Your task to perform on an android device: Do I have any events today? Image 0: 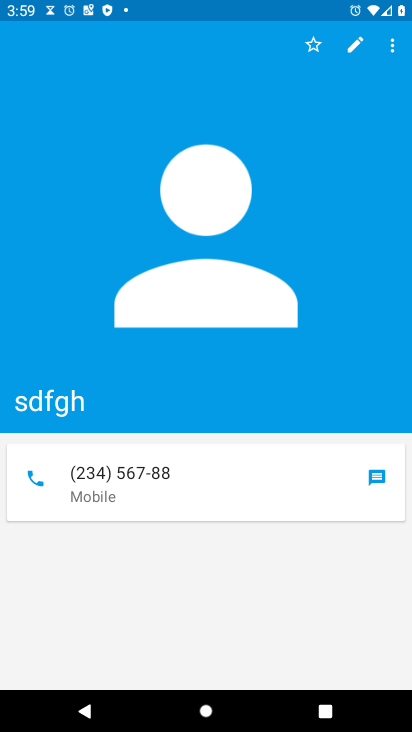
Step 0: press back button
Your task to perform on an android device: Do I have any events today? Image 1: 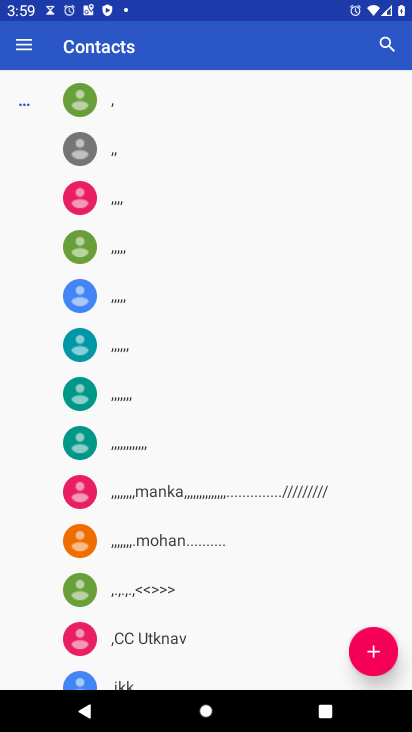
Step 1: press back button
Your task to perform on an android device: Do I have any events today? Image 2: 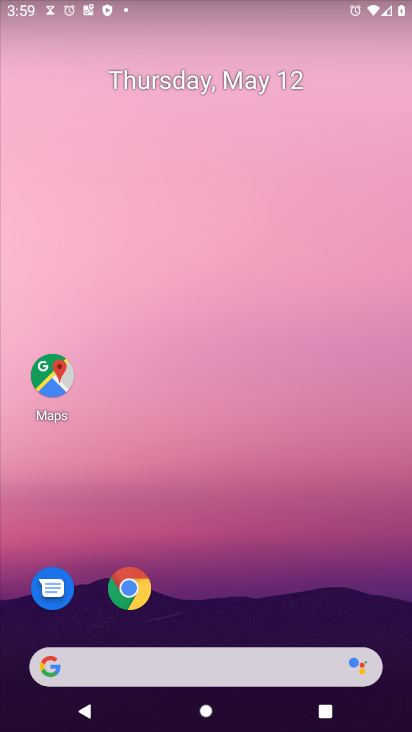
Step 2: drag from (279, 548) to (233, 15)
Your task to perform on an android device: Do I have any events today? Image 3: 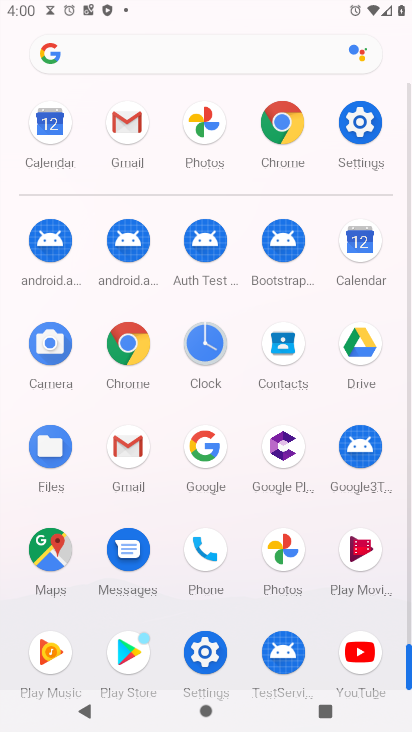
Step 3: click (359, 241)
Your task to perform on an android device: Do I have any events today? Image 4: 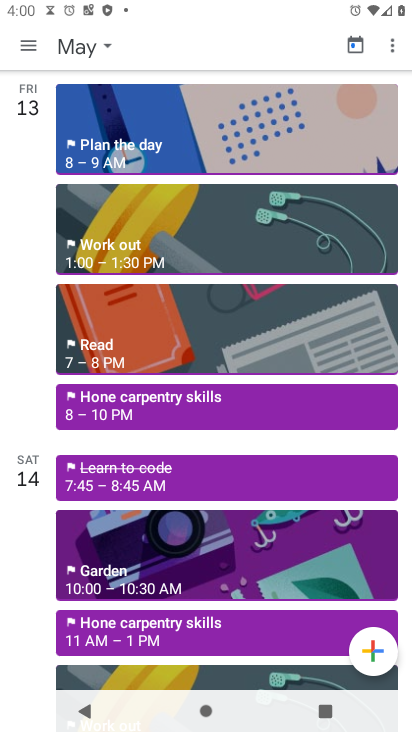
Step 4: drag from (133, 97) to (195, 574)
Your task to perform on an android device: Do I have any events today? Image 5: 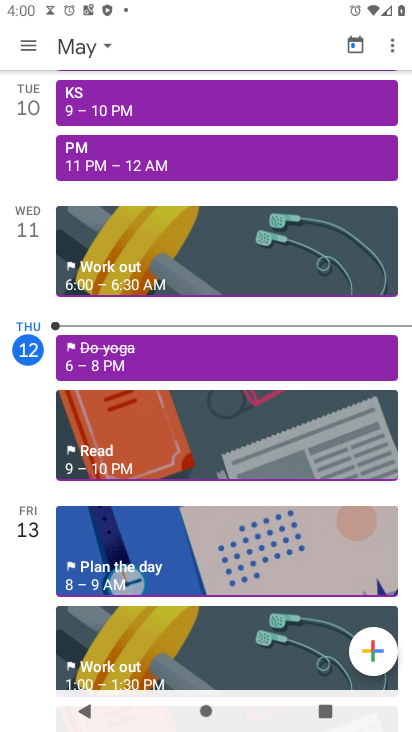
Step 5: click (29, 40)
Your task to perform on an android device: Do I have any events today? Image 6: 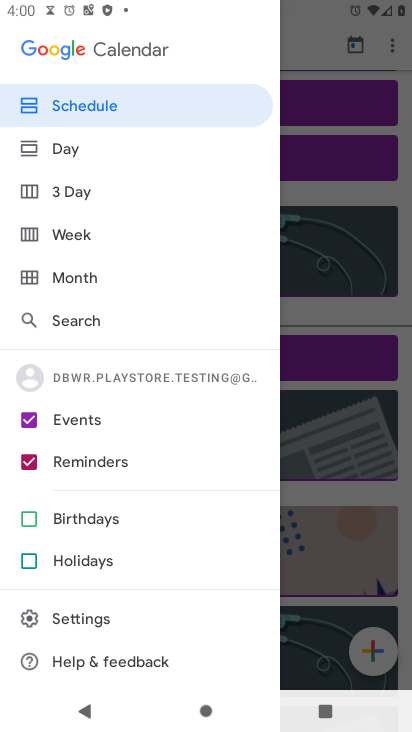
Step 6: click (87, 153)
Your task to perform on an android device: Do I have any events today? Image 7: 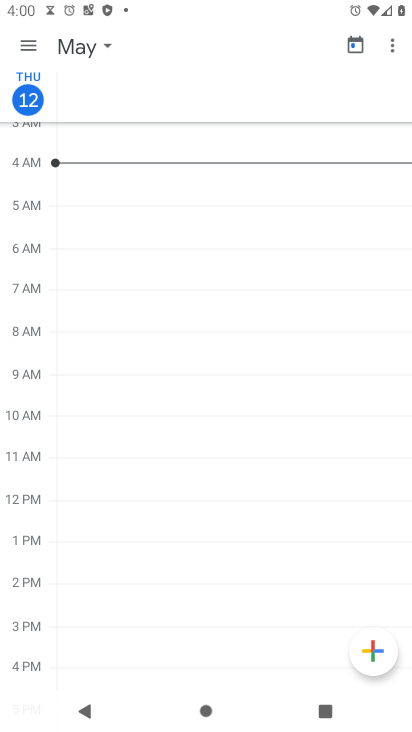
Step 7: task complete